Your task to perform on an android device: toggle notification dots Image 0: 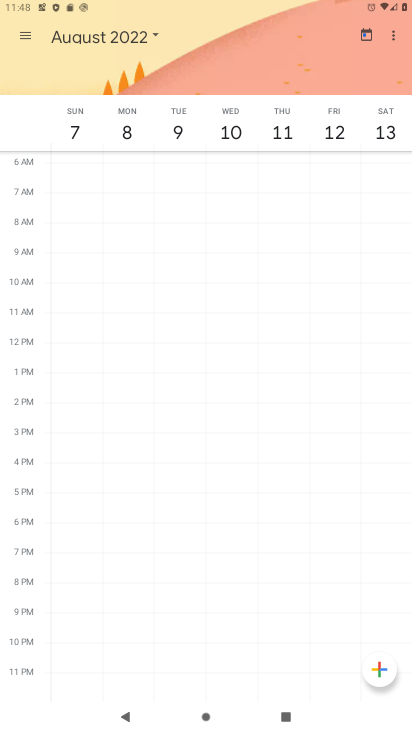
Step 0: press home button
Your task to perform on an android device: toggle notification dots Image 1: 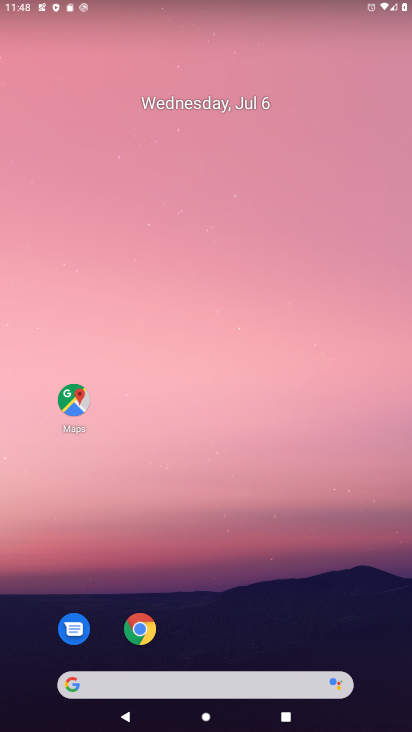
Step 1: drag from (249, 610) to (194, 99)
Your task to perform on an android device: toggle notification dots Image 2: 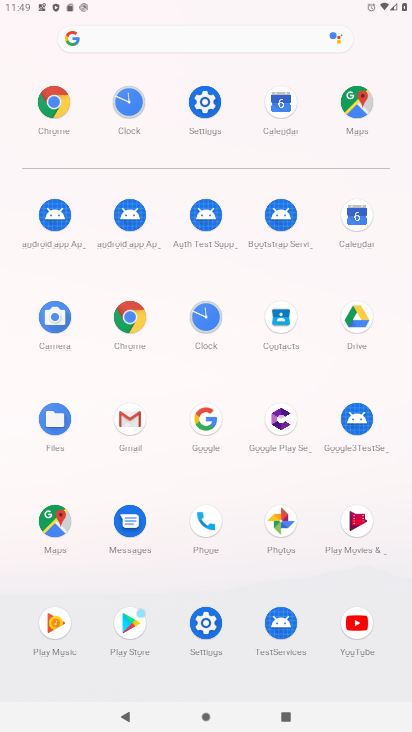
Step 2: click (204, 101)
Your task to perform on an android device: toggle notification dots Image 3: 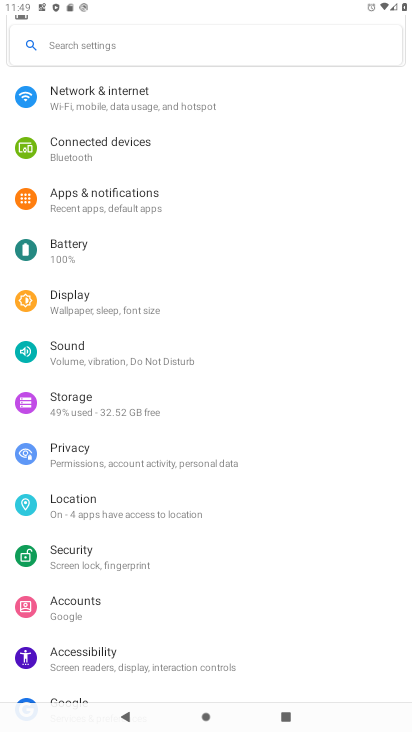
Step 3: click (131, 198)
Your task to perform on an android device: toggle notification dots Image 4: 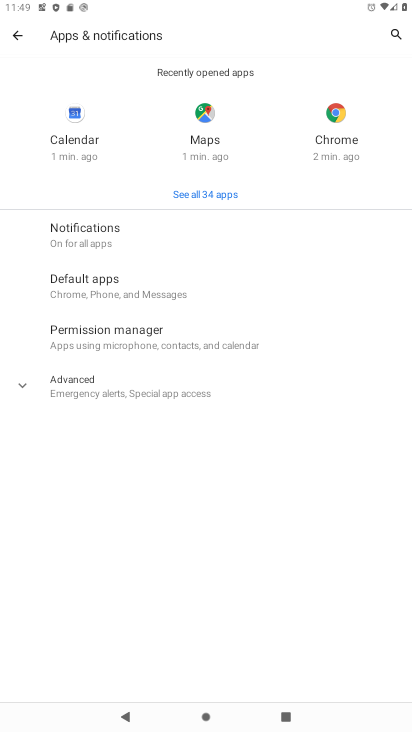
Step 4: click (115, 233)
Your task to perform on an android device: toggle notification dots Image 5: 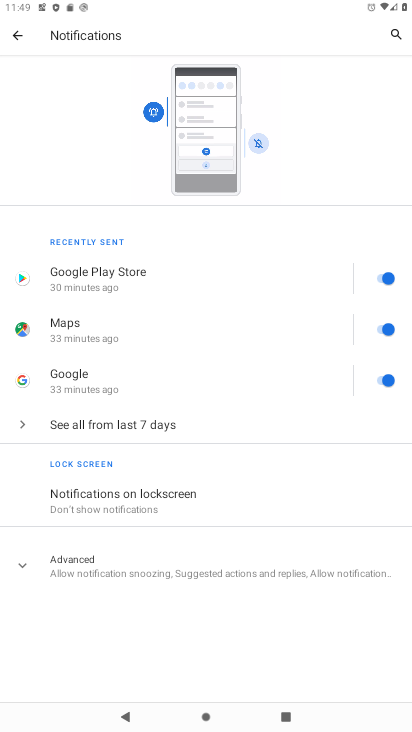
Step 5: click (123, 568)
Your task to perform on an android device: toggle notification dots Image 6: 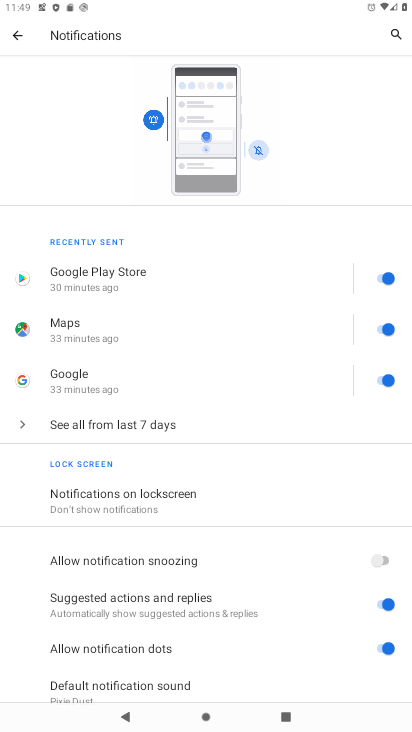
Step 6: drag from (269, 501) to (318, 394)
Your task to perform on an android device: toggle notification dots Image 7: 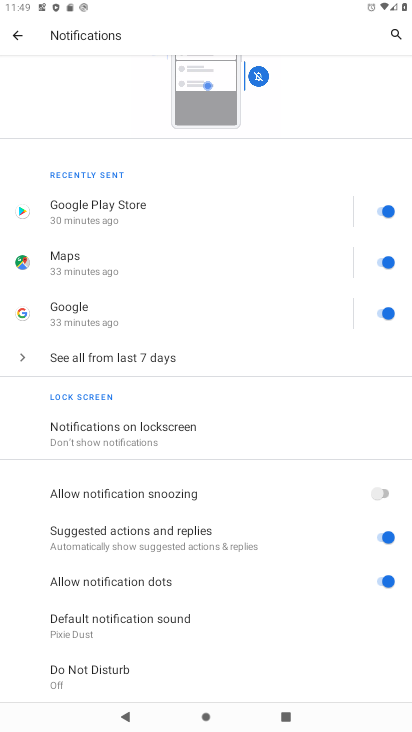
Step 7: click (385, 578)
Your task to perform on an android device: toggle notification dots Image 8: 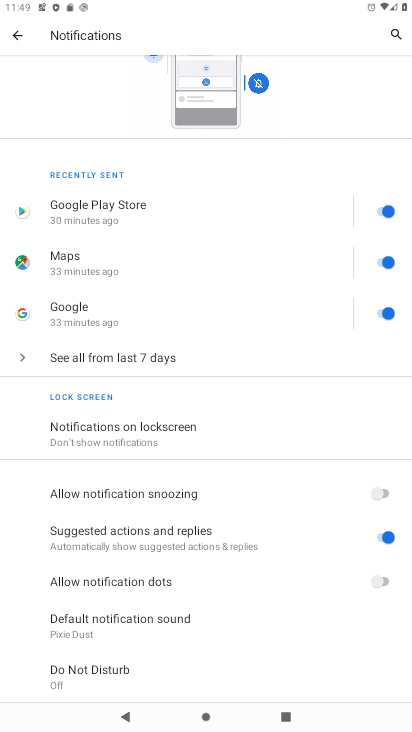
Step 8: task complete